Your task to perform on an android device: Go to location settings Image 0: 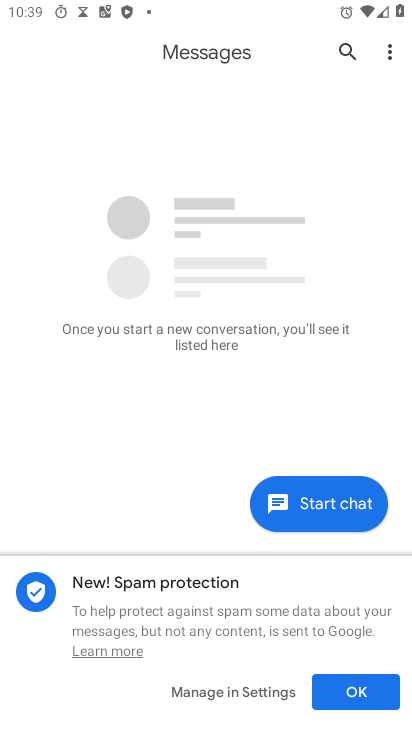
Step 0: press home button
Your task to perform on an android device: Go to location settings Image 1: 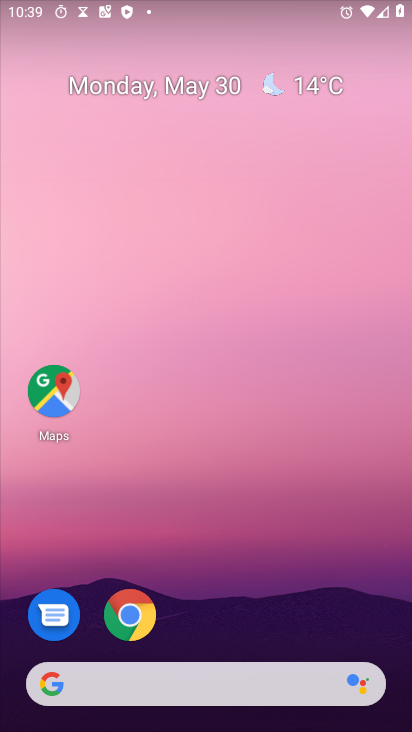
Step 1: drag from (276, 615) to (305, 66)
Your task to perform on an android device: Go to location settings Image 2: 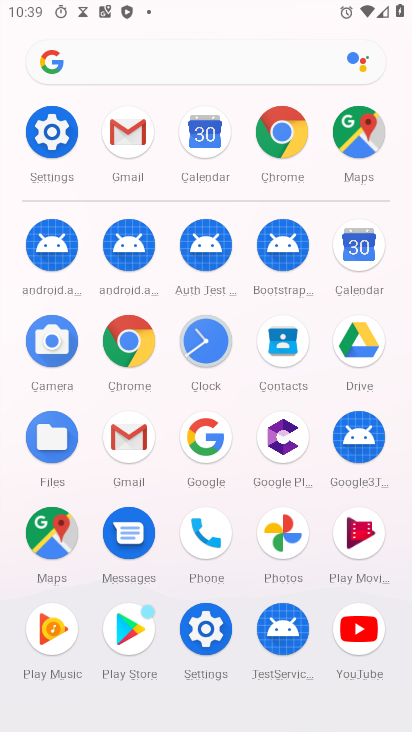
Step 2: click (38, 137)
Your task to perform on an android device: Go to location settings Image 3: 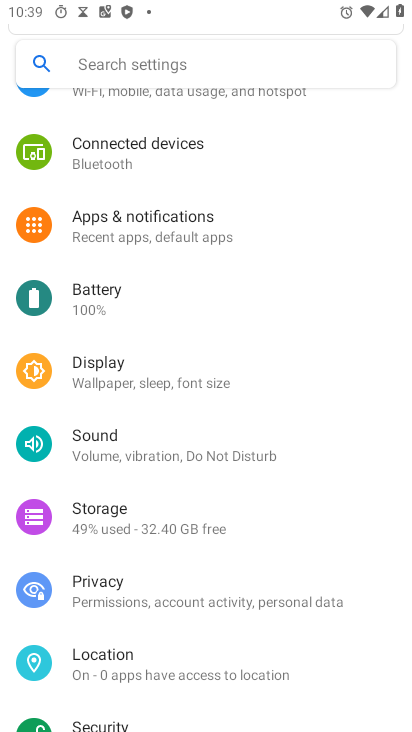
Step 3: drag from (223, 596) to (303, 219)
Your task to perform on an android device: Go to location settings Image 4: 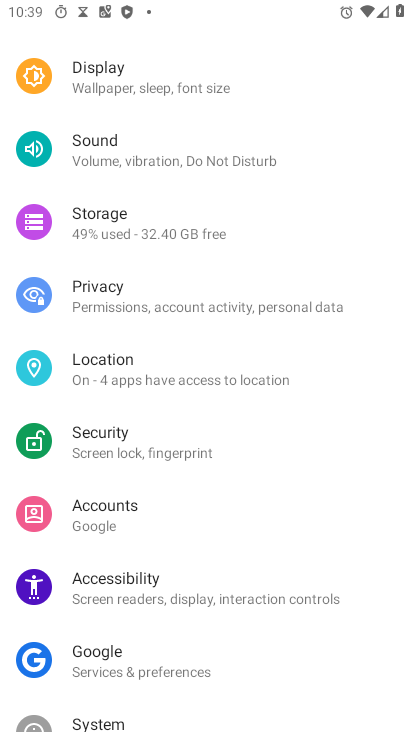
Step 4: click (126, 382)
Your task to perform on an android device: Go to location settings Image 5: 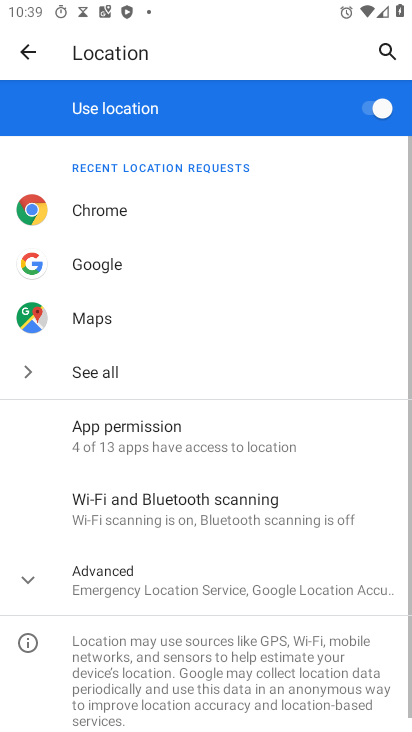
Step 5: task complete